Your task to perform on an android device: Go to Google Image 0: 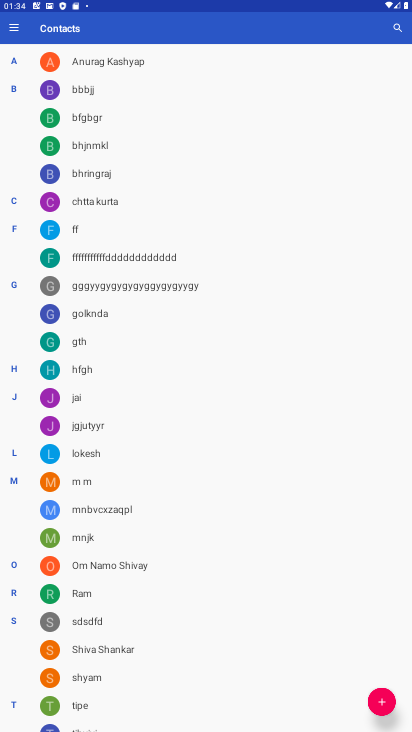
Step 0: press home button
Your task to perform on an android device: Go to Google Image 1: 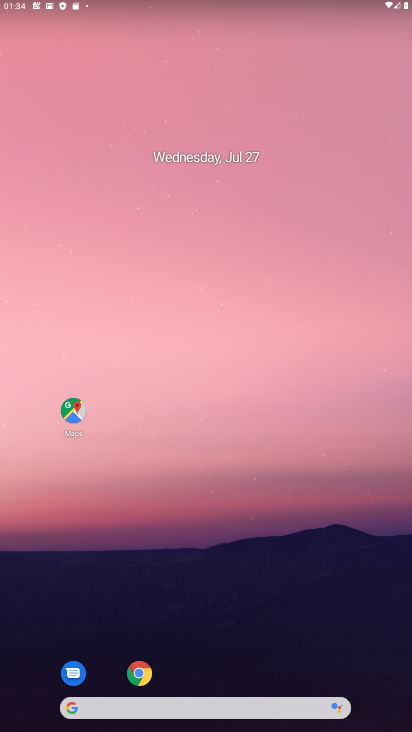
Step 1: drag from (263, 668) to (262, 248)
Your task to perform on an android device: Go to Google Image 2: 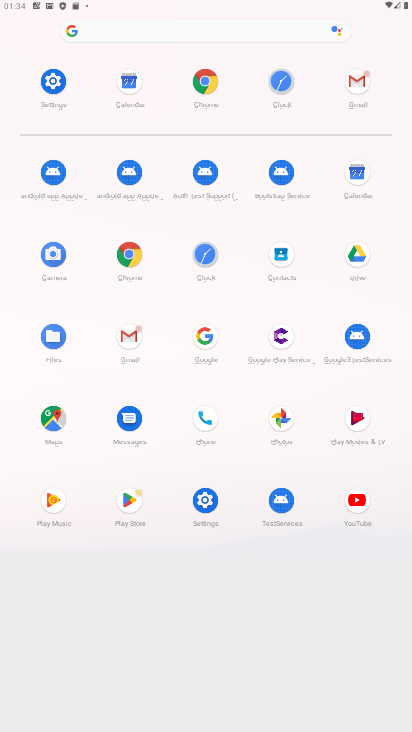
Step 2: click (203, 327)
Your task to perform on an android device: Go to Google Image 3: 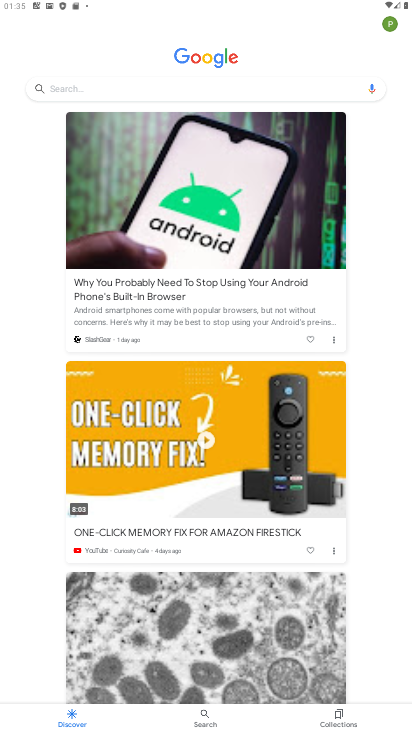
Step 3: task complete